Your task to perform on an android device: check storage Image 0: 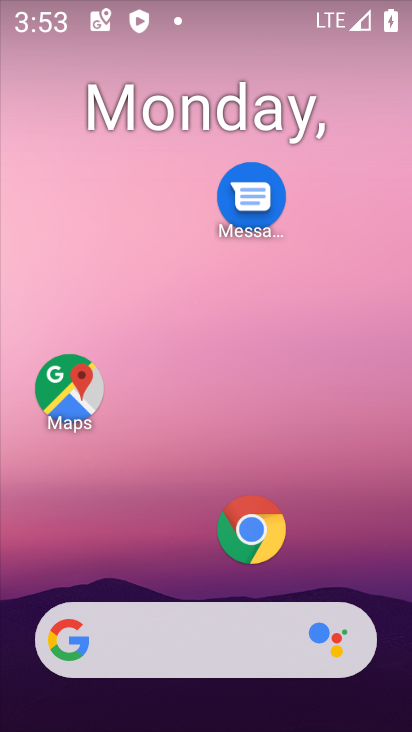
Step 0: drag from (154, 579) to (192, 132)
Your task to perform on an android device: check storage Image 1: 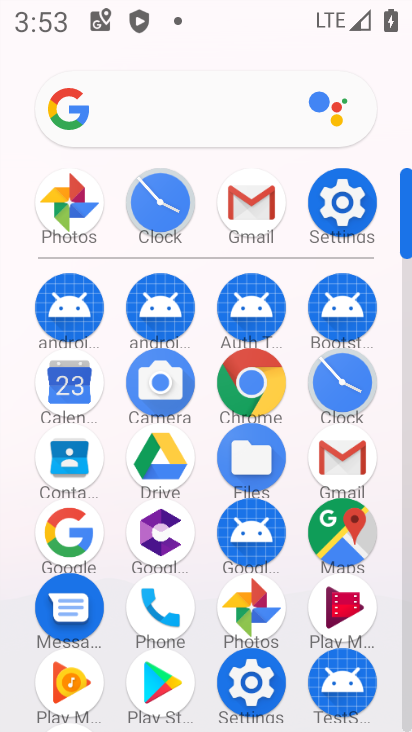
Step 1: click (325, 217)
Your task to perform on an android device: check storage Image 2: 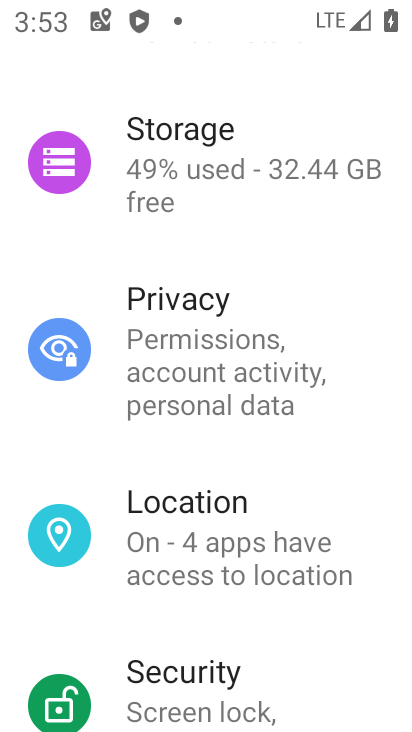
Step 2: drag from (235, 651) to (218, 727)
Your task to perform on an android device: check storage Image 3: 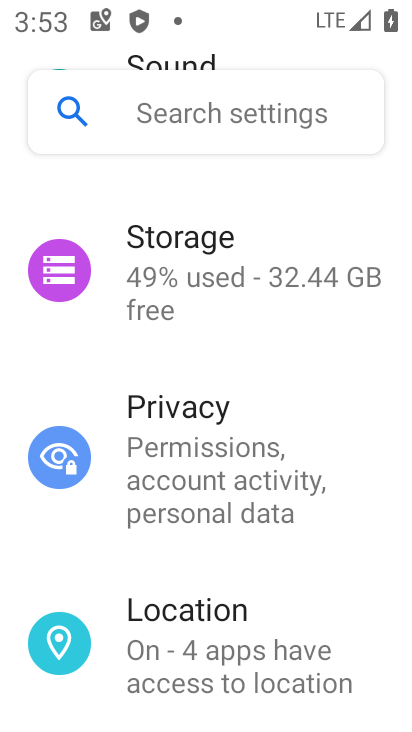
Step 3: click (182, 313)
Your task to perform on an android device: check storage Image 4: 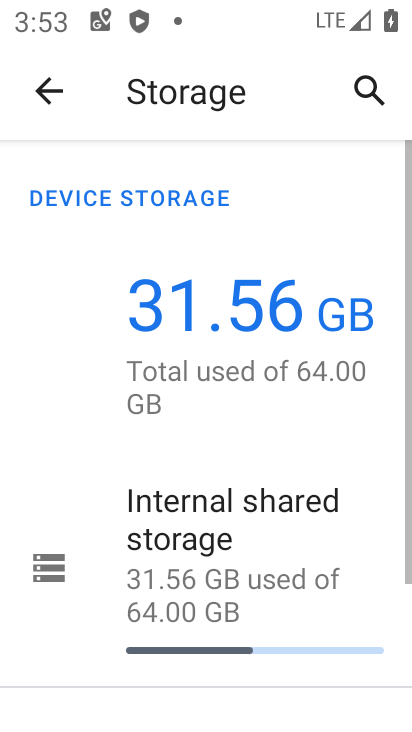
Step 4: task complete